Your task to perform on an android device: Check the news Image 0: 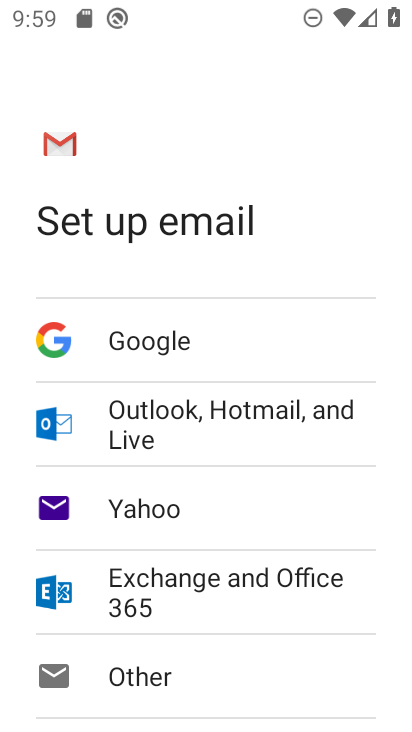
Step 0: drag from (345, 581) to (333, 254)
Your task to perform on an android device: Check the news Image 1: 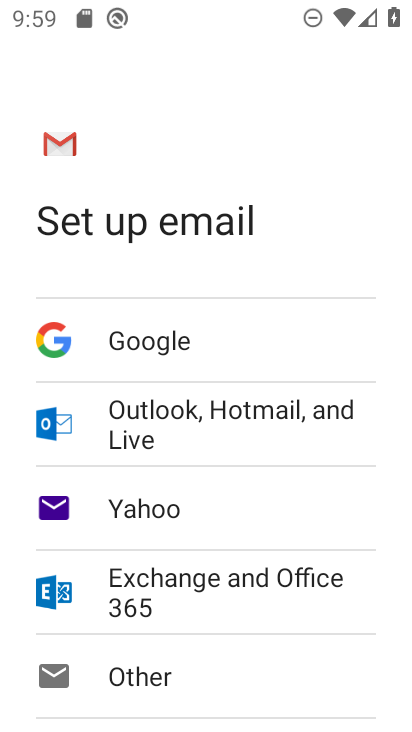
Step 1: press home button
Your task to perform on an android device: Check the news Image 2: 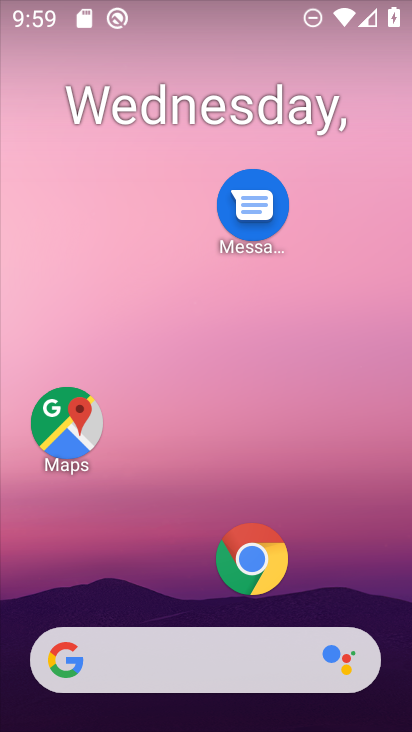
Step 2: drag from (246, 553) to (272, 72)
Your task to perform on an android device: Check the news Image 3: 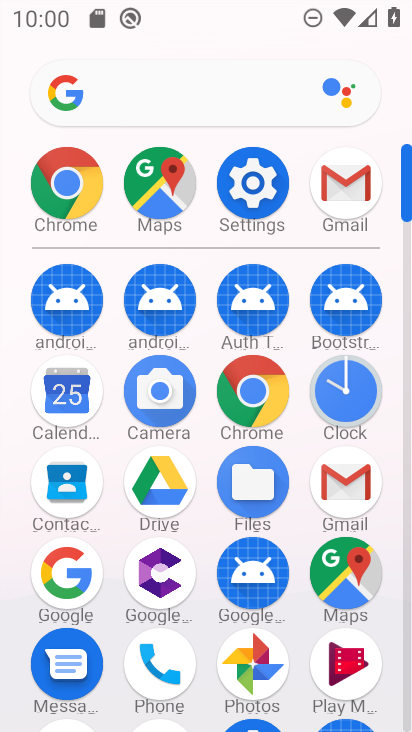
Step 3: click (78, 581)
Your task to perform on an android device: Check the news Image 4: 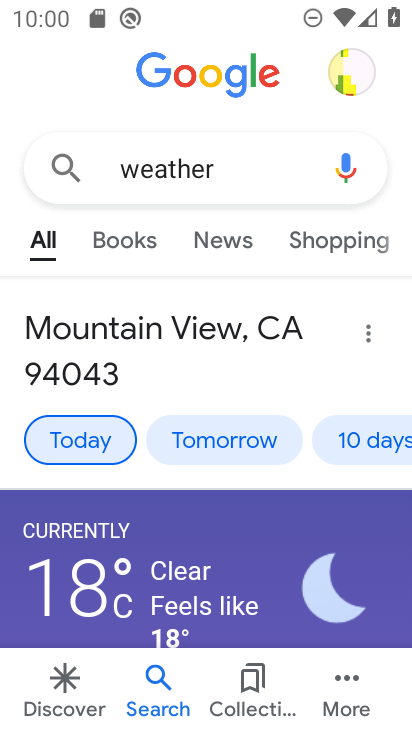
Step 4: click (257, 170)
Your task to perform on an android device: Check the news Image 5: 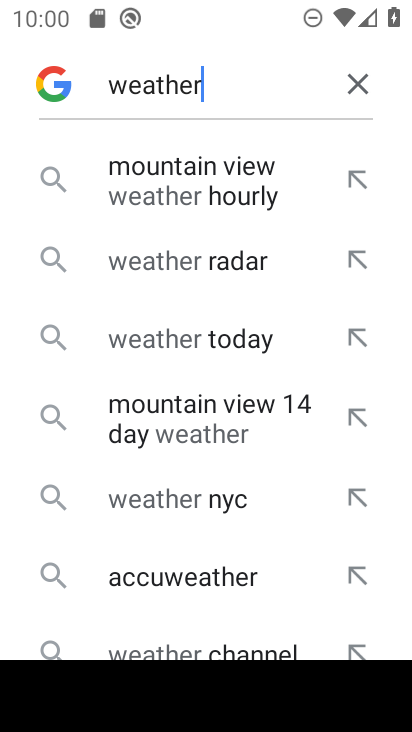
Step 5: click (355, 102)
Your task to perform on an android device: Check the news Image 6: 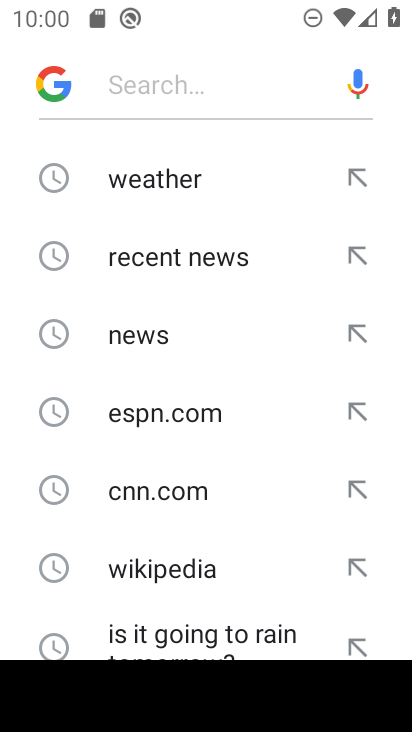
Step 6: click (267, 337)
Your task to perform on an android device: Check the news Image 7: 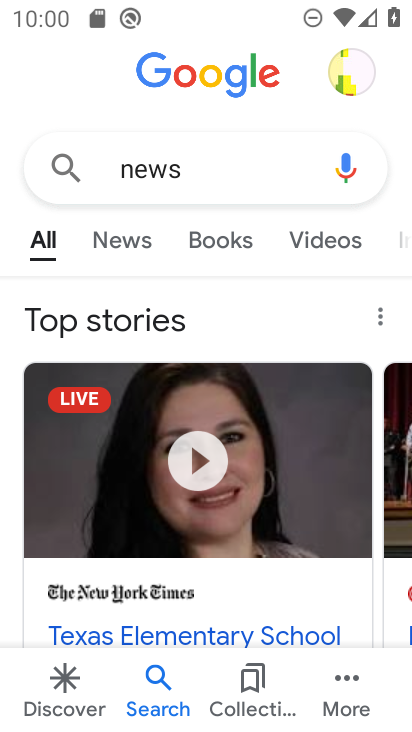
Step 7: task complete